Your task to perform on an android device: Open sound settings Image 0: 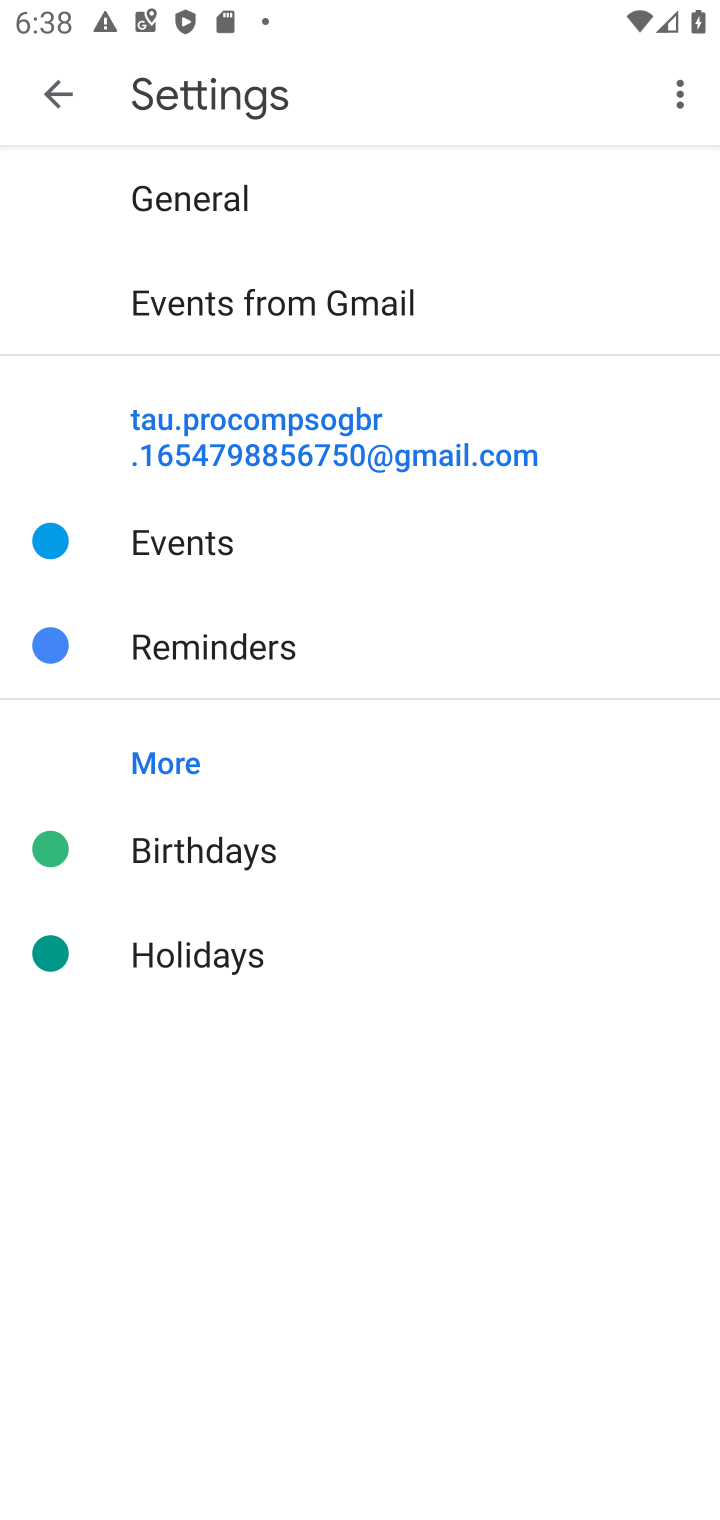
Step 0: task complete